Your task to perform on an android device: Go to settings Image 0: 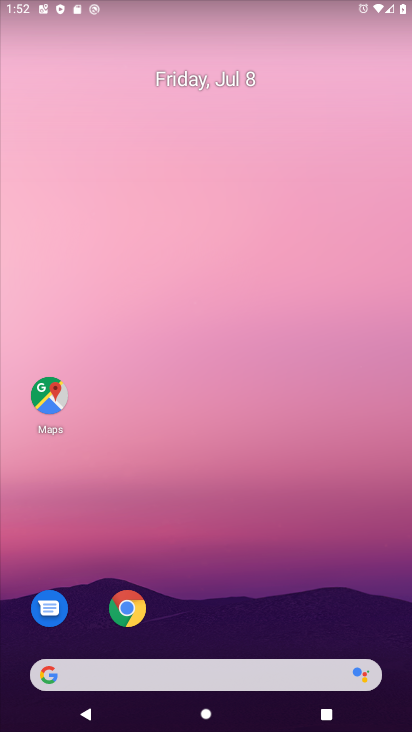
Step 0: drag from (222, 10) to (227, 379)
Your task to perform on an android device: Go to settings Image 1: 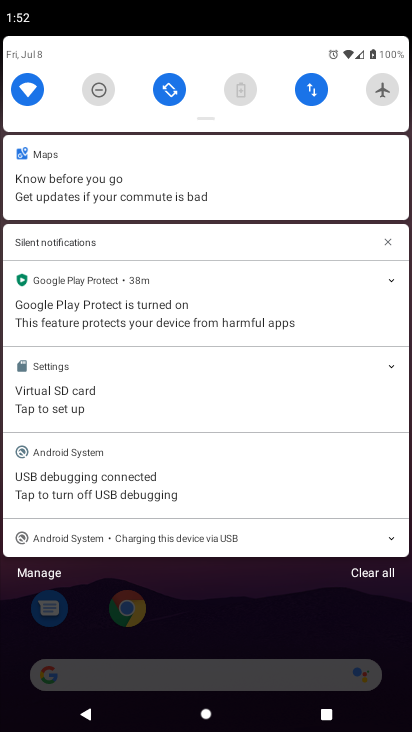
Step 1: drag from (201, 69) to (204, 555)
Your task to perform on an android device: Go to settings Image 2: 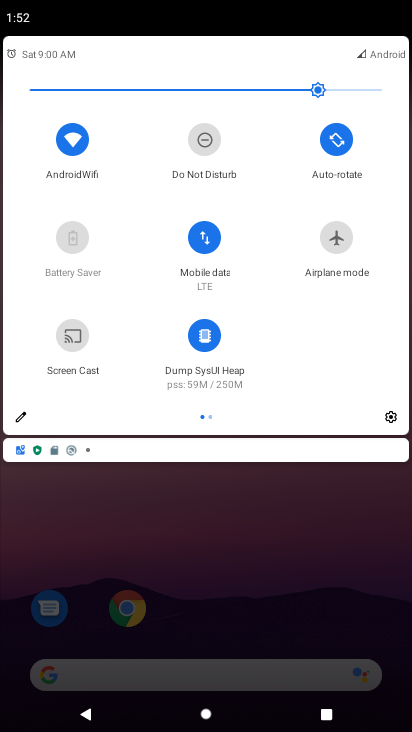
Step 2: click (387, 419)
Your task to perform on an android device: Go to settings Image 3: 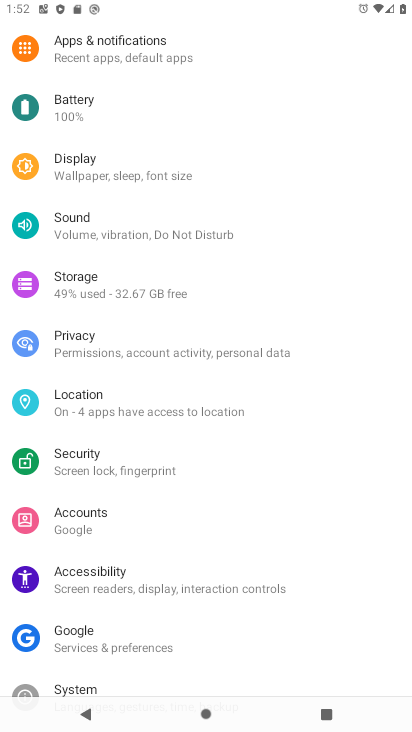
Step 3: task complete